Your task to perform on an android device: delete browsing data in the chrome app Image 0: 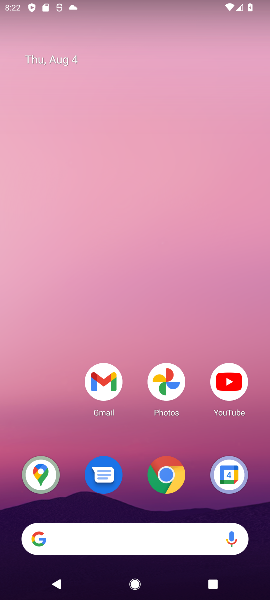
Step 0: drag from (129, 503) to (137, 153)
Your task to perform on an android device: delete browsing data in the chrome app Image 1: 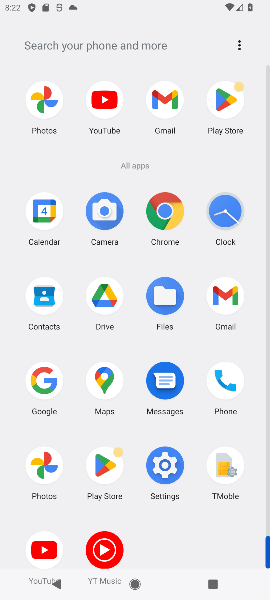
Step 1: click (165, 212)
Your task to perform on an android device: delete browsing data in the chrome app Image 2: 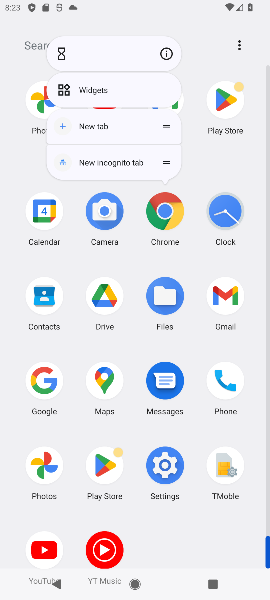
Step 2: click (165, 48)
Your task to perform on an android device: delete browsing data in the chrome app Image 3: 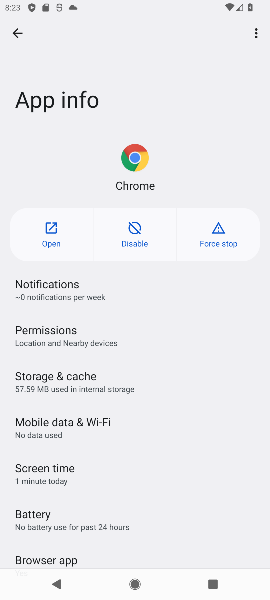
Step 3: click (44, 234)
Your task to perform on an android device: delete browsing data in the chrome app Image 4: 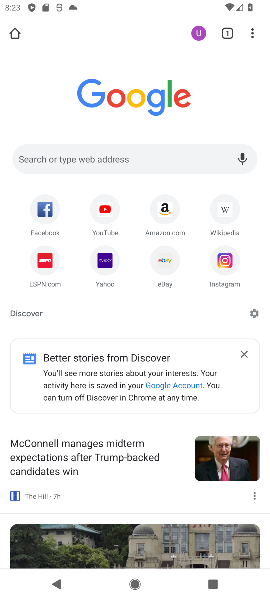
Step 4: drag from (143, 493) to (131, 220)
Your task to perform on an android device: delete browsing data in the chrome app Image 5: 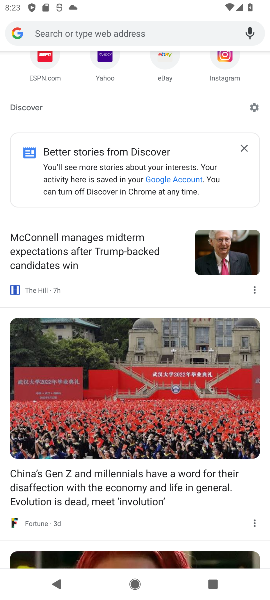
Step 5: drag from (111, 487) to (159, 262)
Your task to perform on an android device: delete browsing data in the chrome app Image 6: 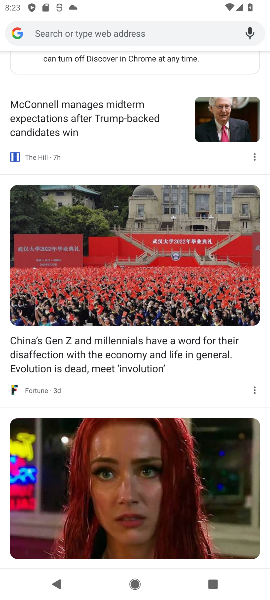
Step 6: drag from (93, 369) to (142, 206)
Your task to perform on an android device: delete browsing data in the chrome app Image 7: 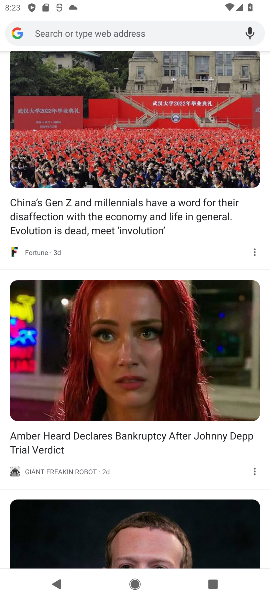
Step 7: drag from (146, 248) to (163, 498)
Your task to perform on an android device: delete browsing data in the chrome app Image 8: 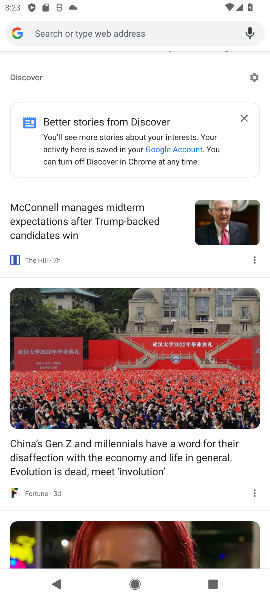
Step 8: drag from (113, 203) to (105, 422)
Your task to perform on an android device: delete browsing data in the chrome app Image 9: 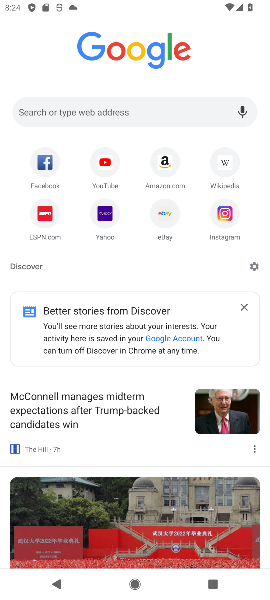
Step 9: drag from (127, 442) to (126, 207)
Your task to perform on an android device: delete browsing data in the chrome app Image 10: 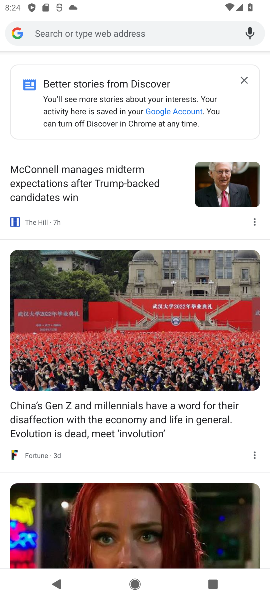
Step 10: drag from (136, 142) to (173, 507)
Your task to perform on an android device: delete browsing data in the chrome app Image 11: 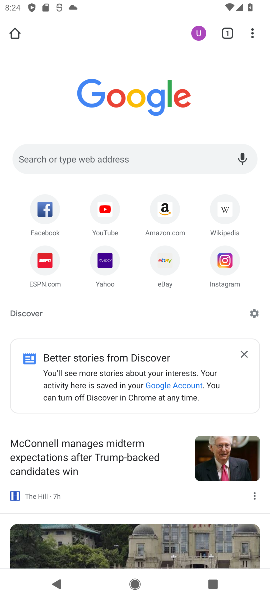
Step 11: drag from (252, 29) to (174, 227)
Your task to perform on an android device: delete browsing data in the chrome app Image 12: 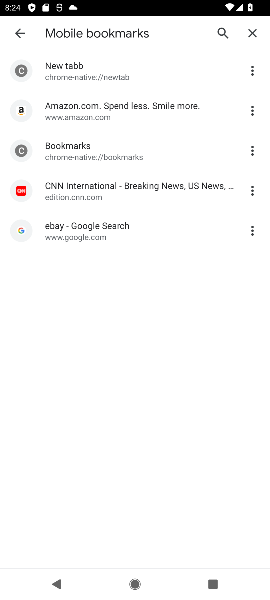
Step 12: click (253, 36)
Your task to perform on an android device: delete browsing data in the chrome app Image 13: 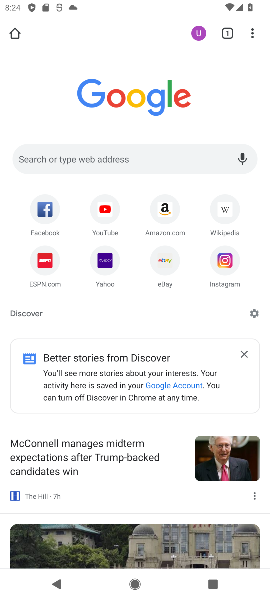
Step 13: drag from (254, 34) to (159, 169)
Your task to perform on an android device: delete browsing data in the chrome app Image 14: 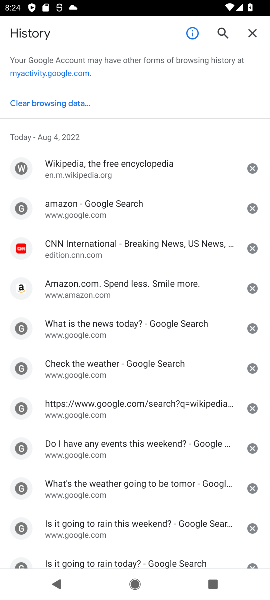
Step 14: click (31, 105)
Your task to perform on an android device: delete browsing data in the chrome app Image 15: 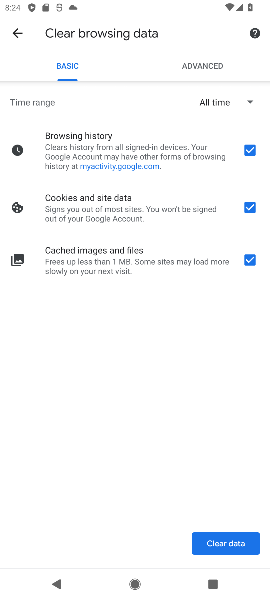
Step 15: drag from (171, 433) to (149, 195)
Your task to perform on an android device: delete browsing data in the chrome app Image 16: 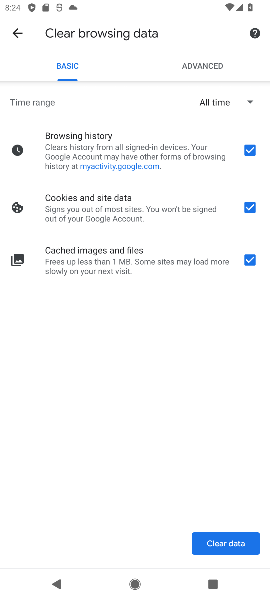
Step 16: click (229, 543)
Your task to perform on an android device: delete browsing data in the chrome app Image 17: 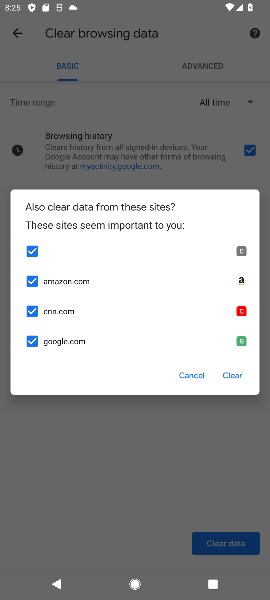
Step 17: click (219, 372)
Your task to perform on an android device: delete browsing data in the chrome app Image 18: 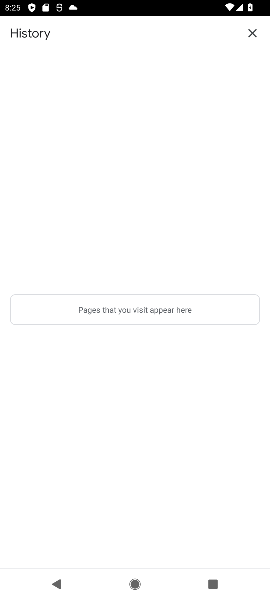
Step 18: task complete